Your task to perform on an android device: check android version Image 0: 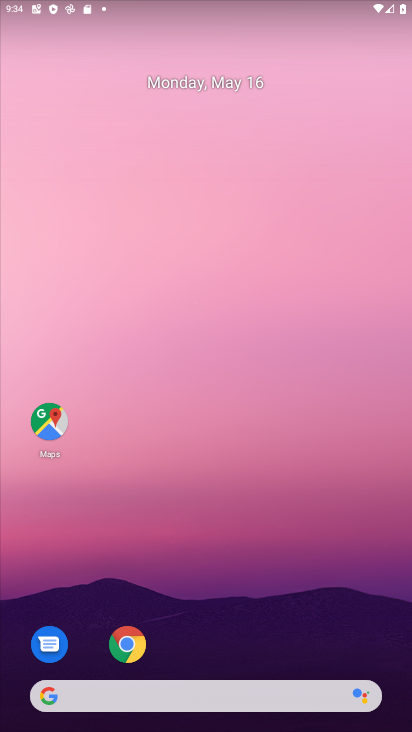
Step 0: drag from (221, 727) to (244, 0)
Your task to perform on an android device: check android version Image 1: 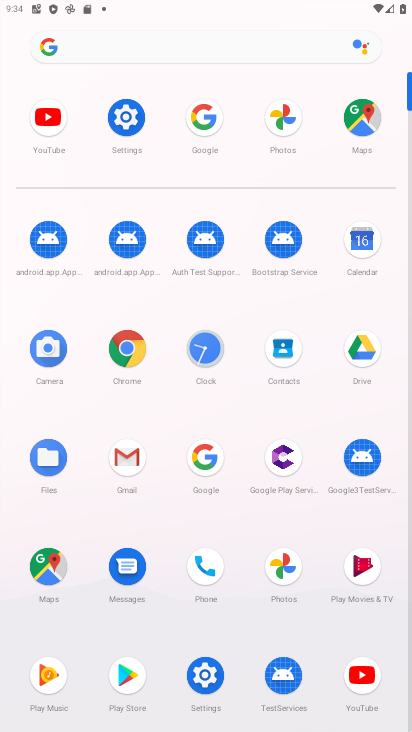
Step 1: click (132, 126)
Your task to perform on an android device: check android version Image 2: 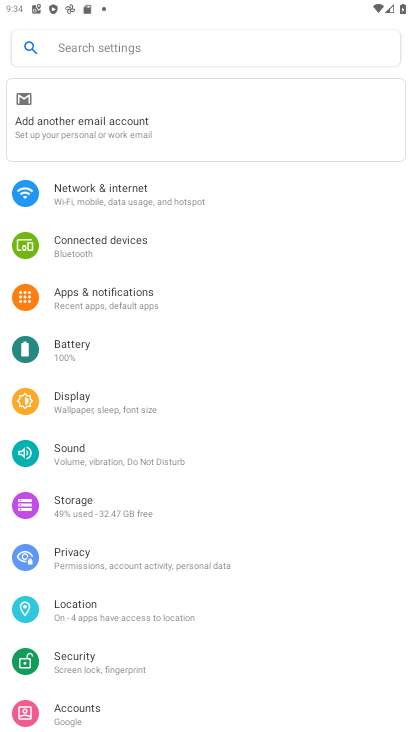
Step 2: drag from (237, 691) to (220, 13)
Your task to perform on an android device: check android version Image 3: 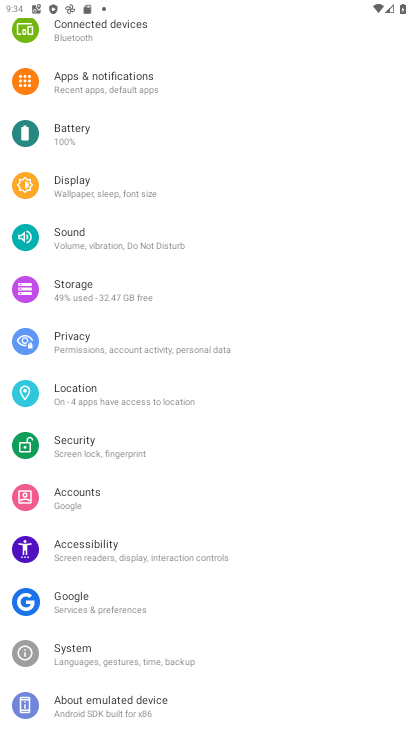
Step 3: click (105, 706)
Your task to perform on an android device: check android version Image 4: 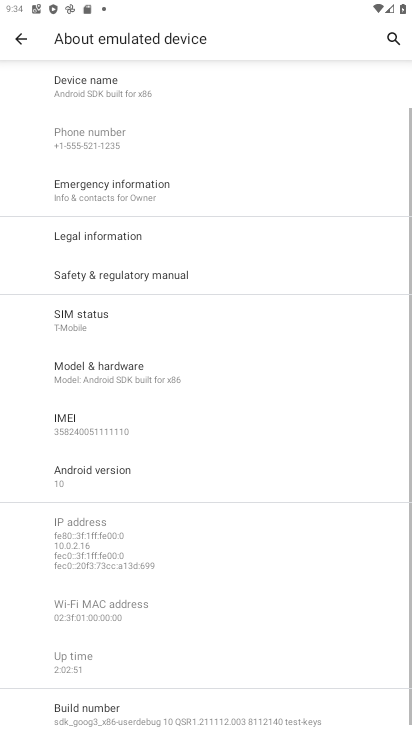
Step 4: task complete